Your task to perform on an android device: Search for seafood restaurants on Google Maps Image 0: 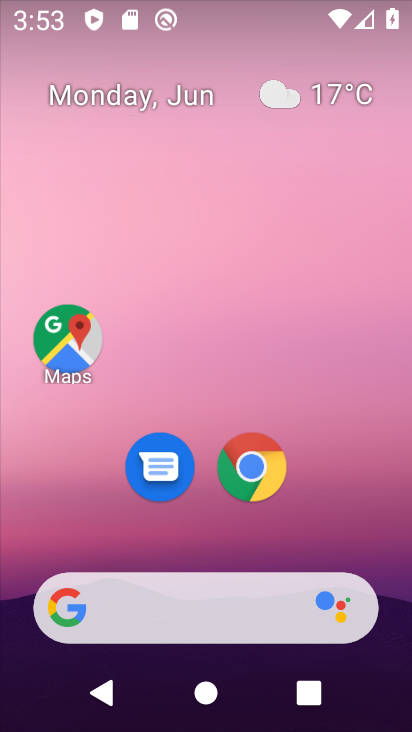
Step 0: click (94, 335)
Your task to perform on an android device: Search for seafood restaurants on Google Maps Image 1: 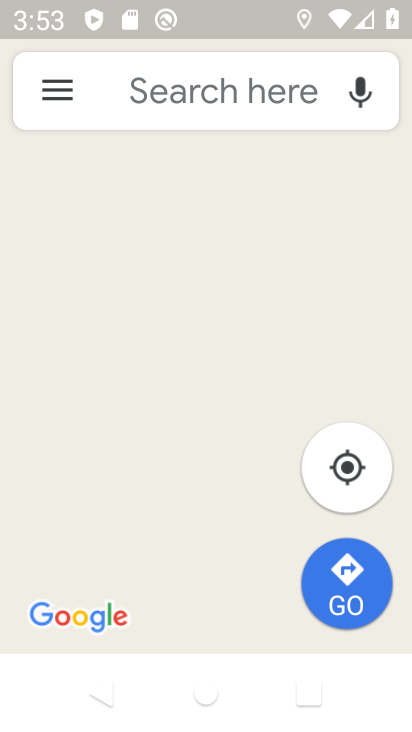
Step 1: click (201, 93)
Your task to perform on an android device: Search for seafood restaurants on Google Maps Image 2: 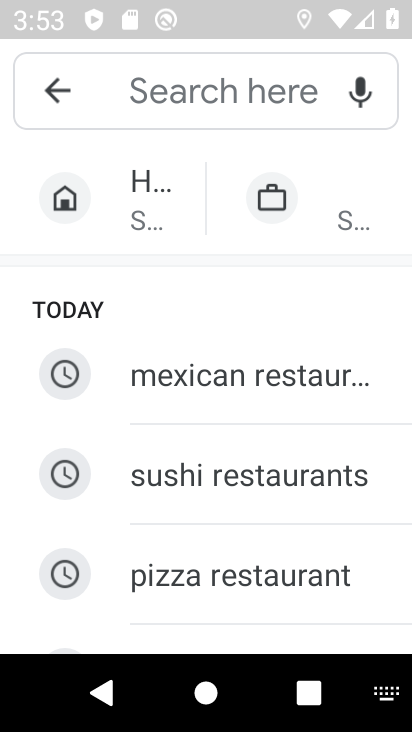
Step 2: type "seafood restaurants"
Your task to perform on an android device: Search for seafood restaurants on Google Maps Image 3: 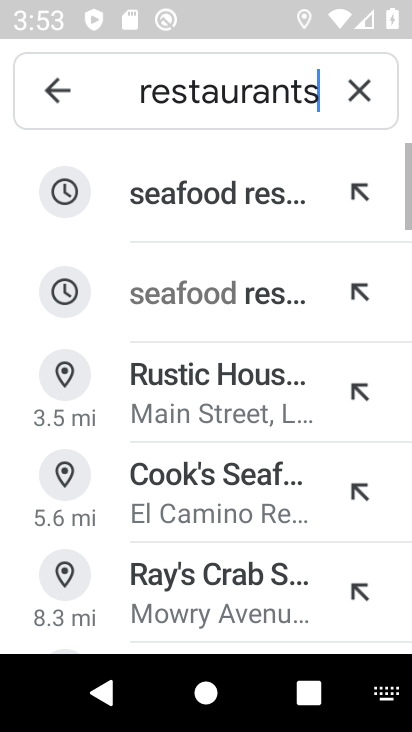
Step 3: click (213, 212)
Your task to perform on an android device: Search for seafood restaurants on Google Maps Image 4: 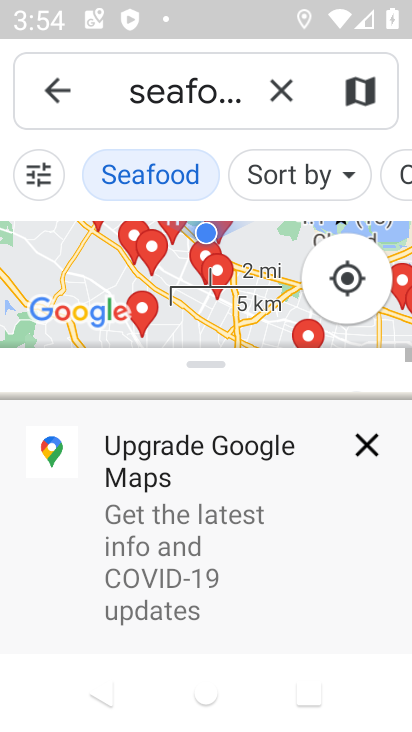
Step 4: task complete